Your task to perform on an android device: Find coffee shops on Maps Image 0: 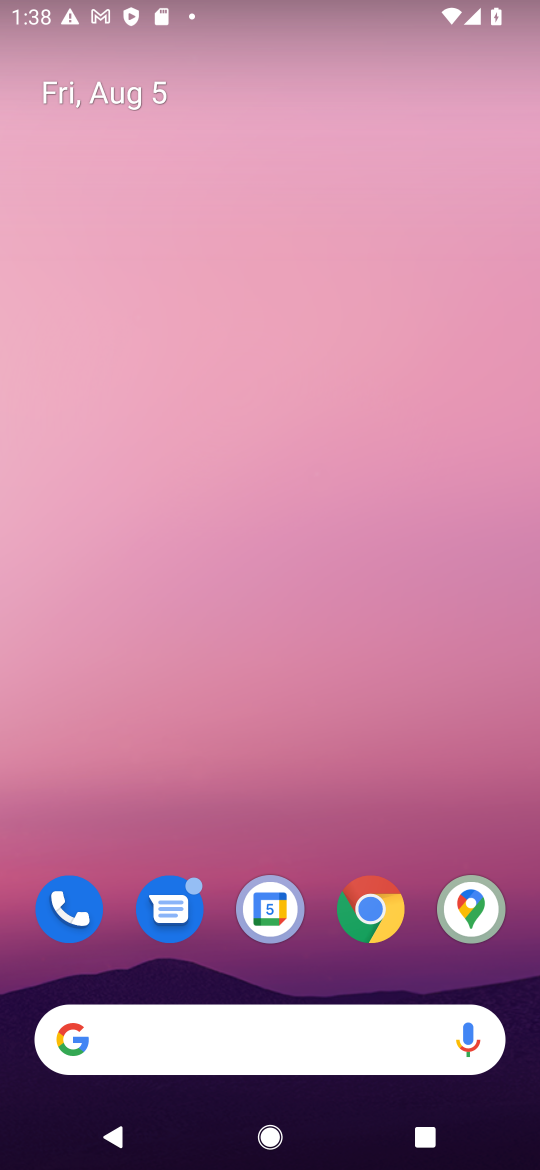
Step 0: click (468, 909)
Your task to perform on an android device: Find coffee shops on Maps Image 1: 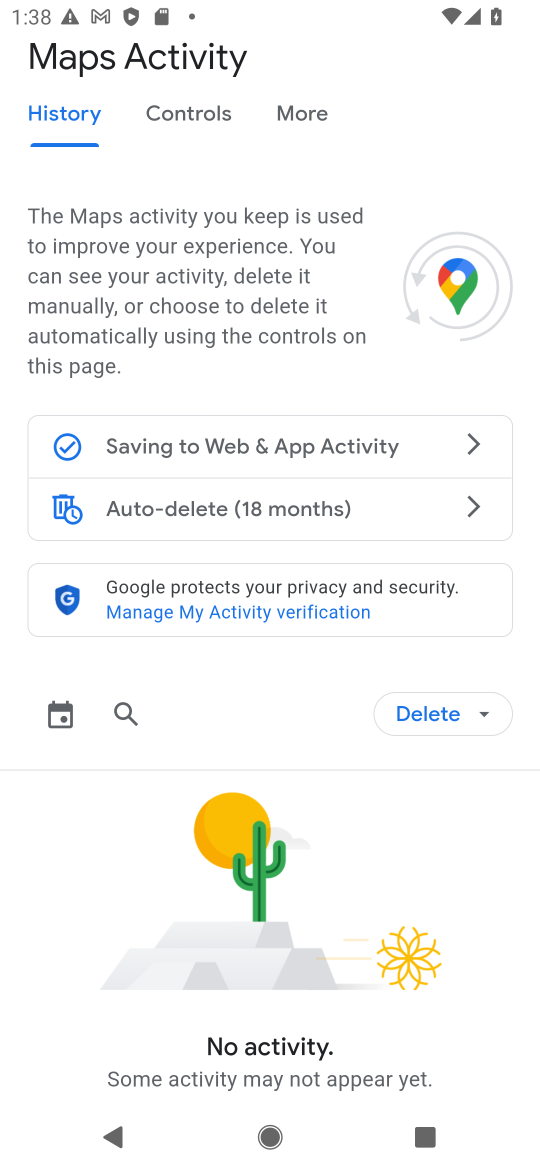
Step 1: press back button
Your task to perform on an android device: Find coffee shops on Maps Image 2: 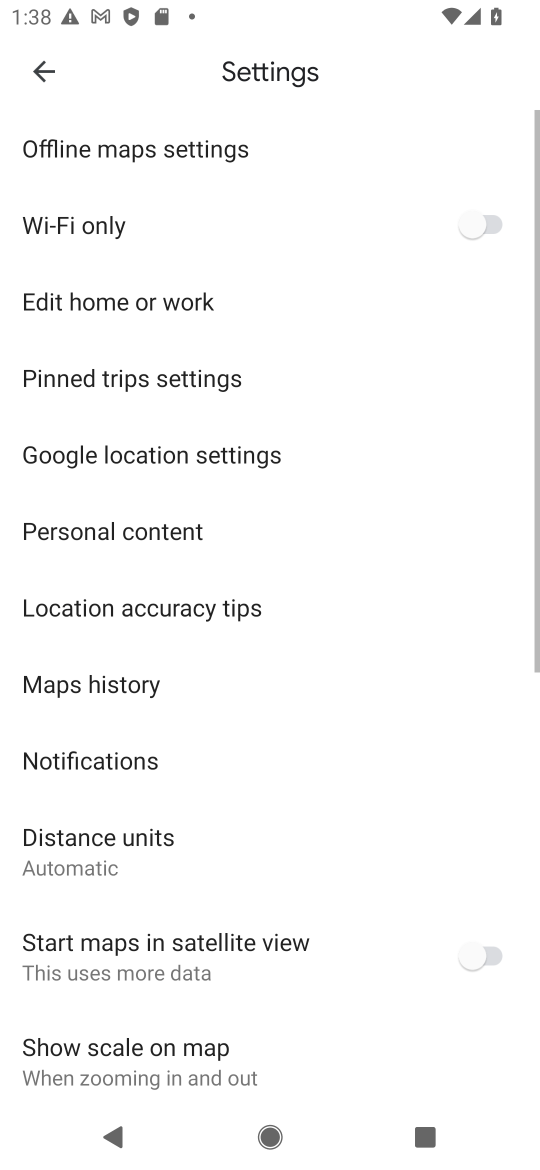
Step 2: press back button
Your task to perform on an android device: Find coffee shops on Maps Image 3: 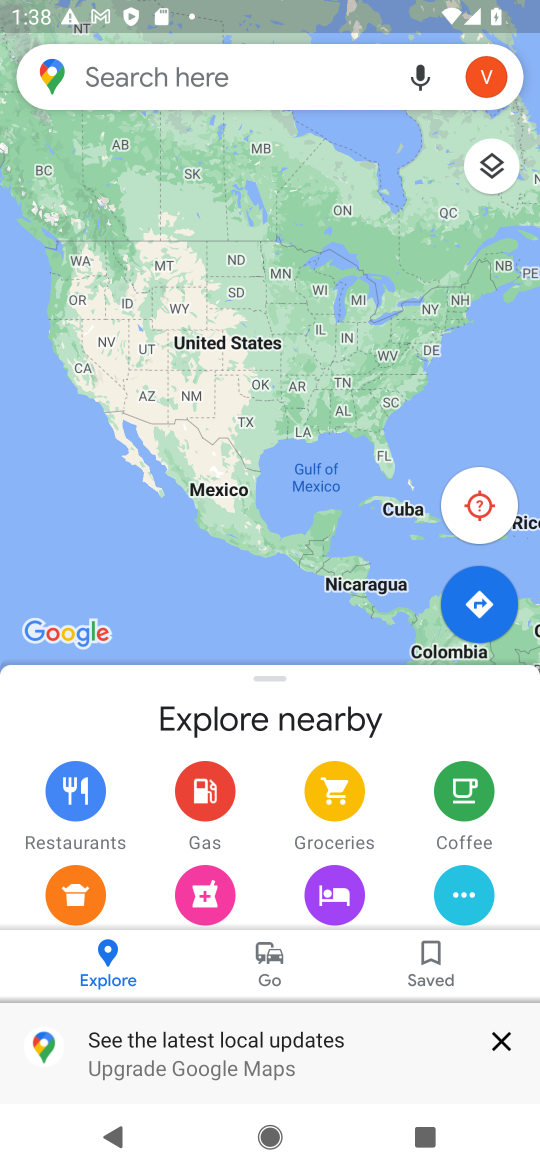
Step 3: click (161, 70)
Your task to perform on an android device: Find coffee shops on Maps Image 4: 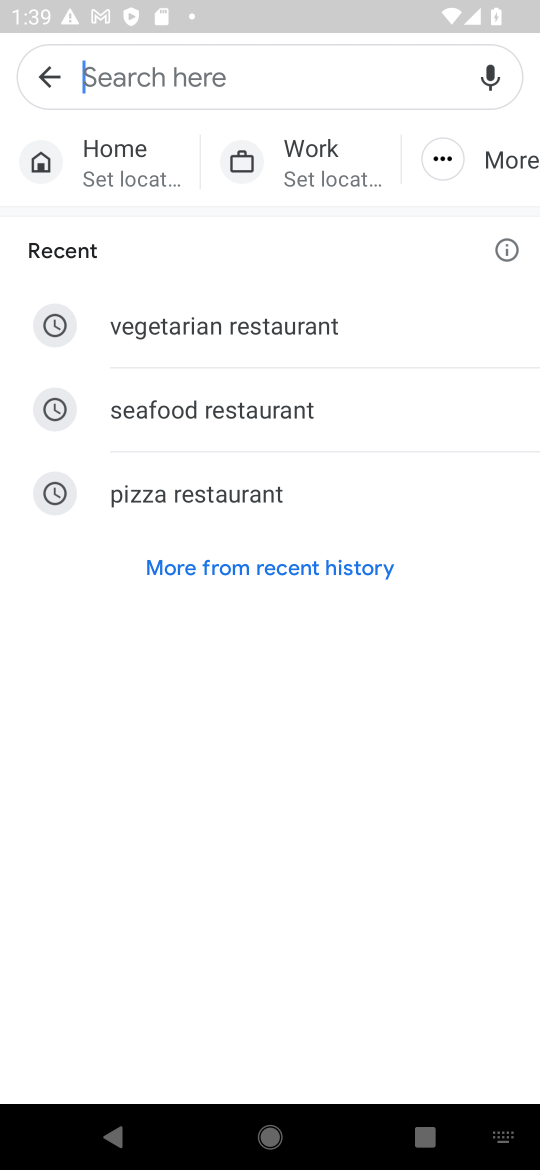
Step 4: type "coffee shops"
Your task to perform on an android device: Find coffee shops on Maps Image 5: 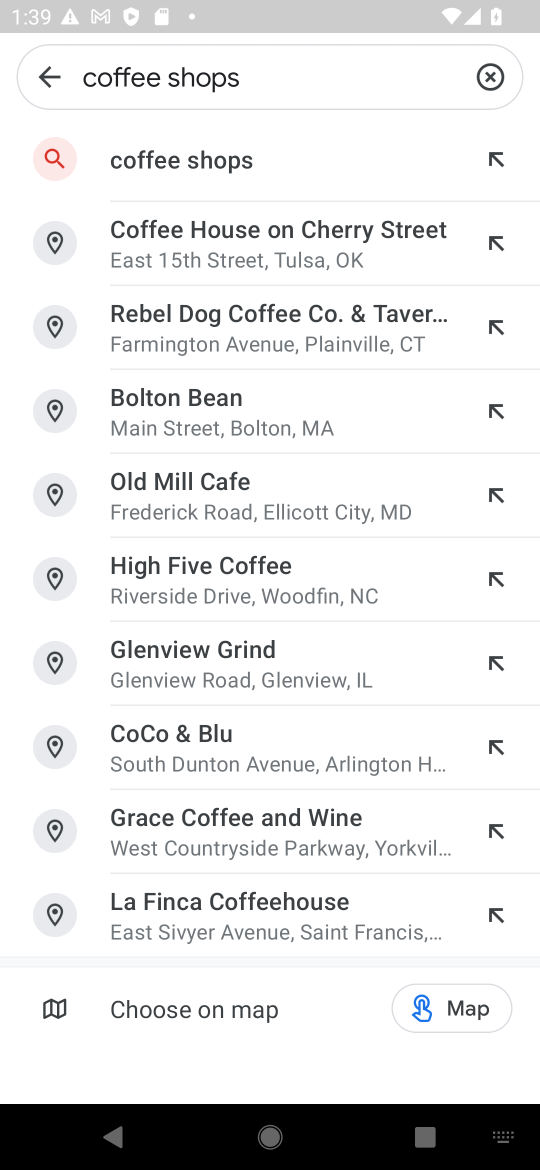
Step 5: click (183, 173)
Your task to perform on an android device: Find coffee shops on Maps Image 6: 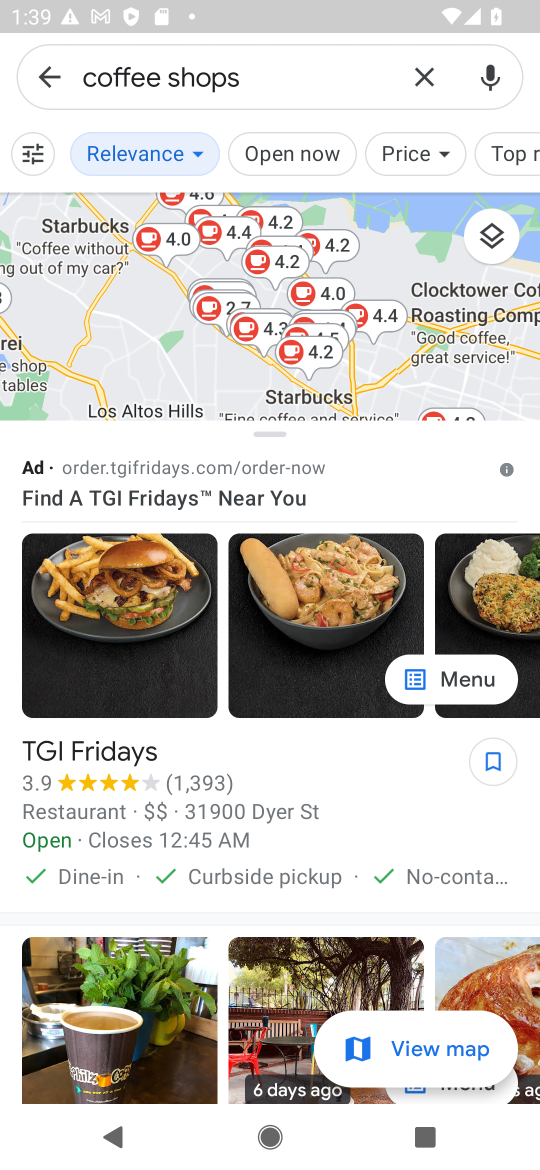
Step 6: task complete